Your task to perform on an android device: change the clock display to digital Image 0: 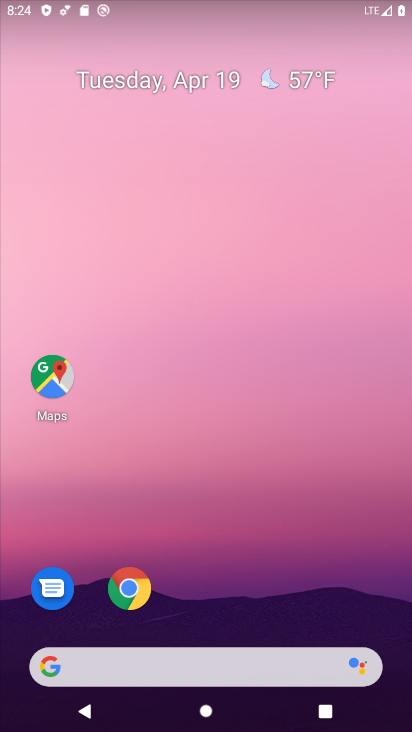
Step 0: drag from (282, 582) to (276, 68)
Your task to perform on an android device: change the clock display to digital Image 1: 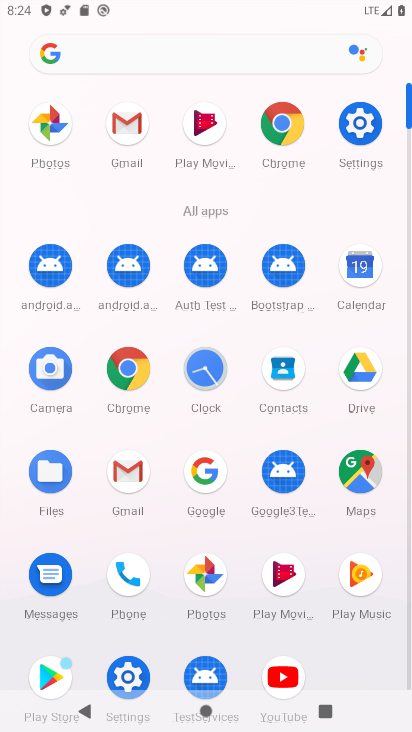
Step 1: click (207, 374)
Your task to perform on an android device: change the clock display to digital Image 2: 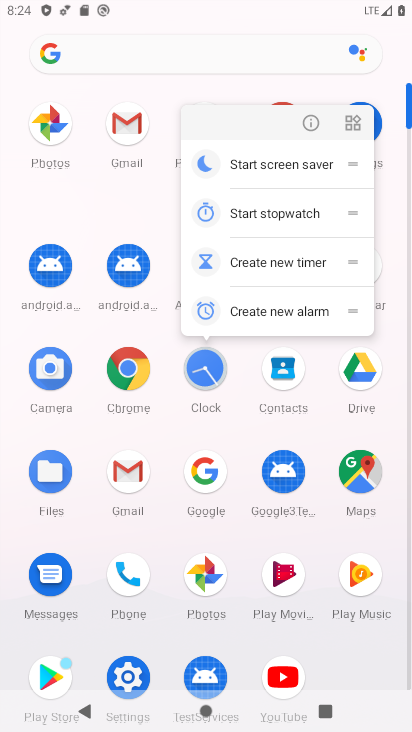
Step 2: click (207, 374)
Your task to perform on an android device: change the clock display to digital Image 3: 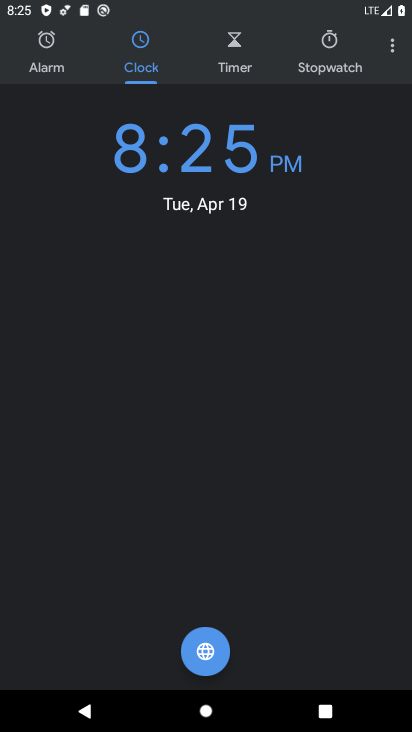
Step 3: click (390, 50)
Your task to perform on an android device: change the clock display to digital Image 4: 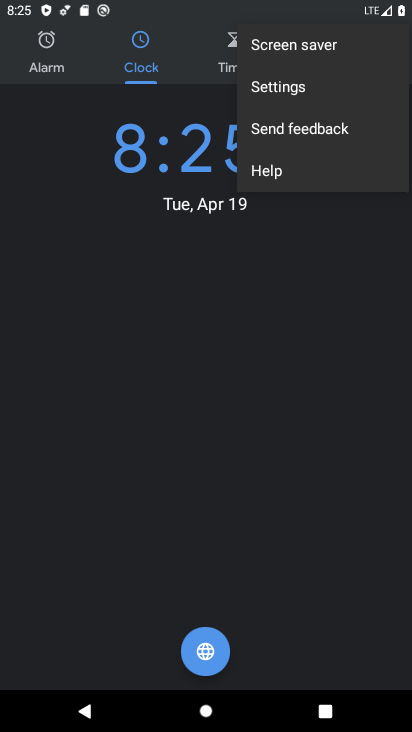
Step 4: click (328, 85)
Your task to perform on an android device: change the clock display to digital Image 5: 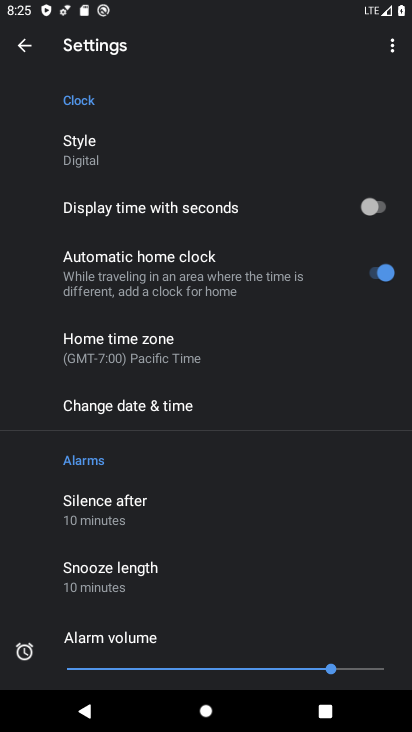
Step 5: click (141, 166)
Your task to perform on an android device: change the clock display to digital Image 6: 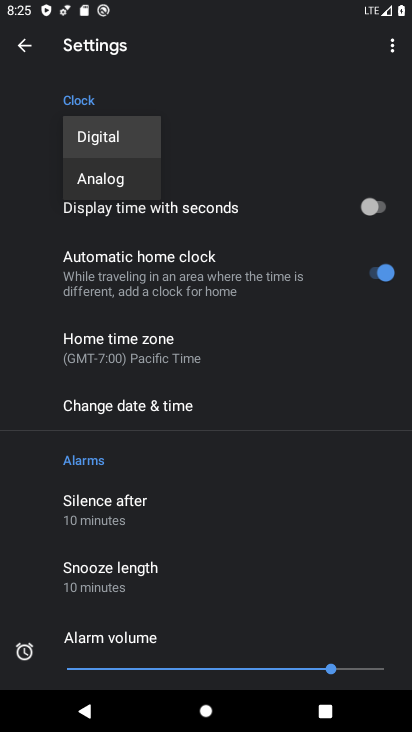
Step 6: click (145, 136)
Your task to perform on an android device: change the clock display to digital Image 7: 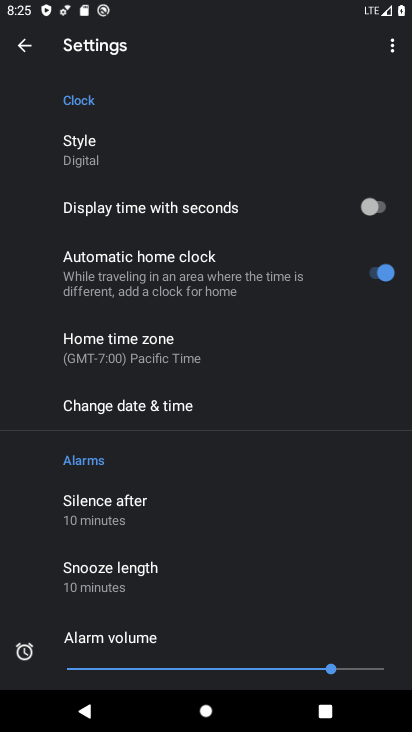
Step 7: task complete